Your task to perform on an android device: Search for a new water heater on Home Depot Image 0: 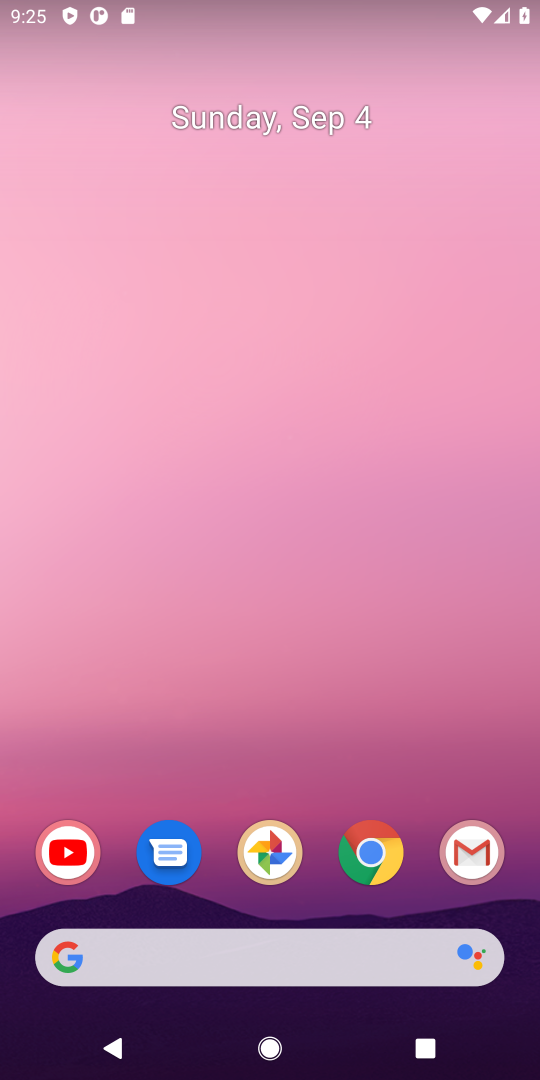
Step 0: drag from (307, 212) to (352, 1)
Your task to perform on an android device: Search for a new water heater on Home Depot Image 1: 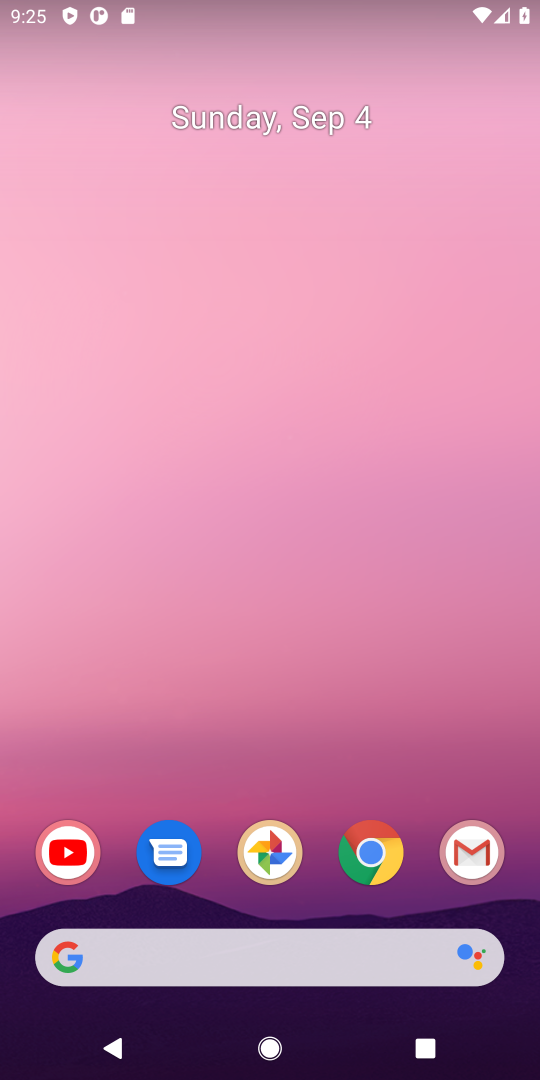
Step 1: drag from (452, 756) to (156, 6)
Your task to perform on an android device: Search for a new water heater on Home Depot Image 2: 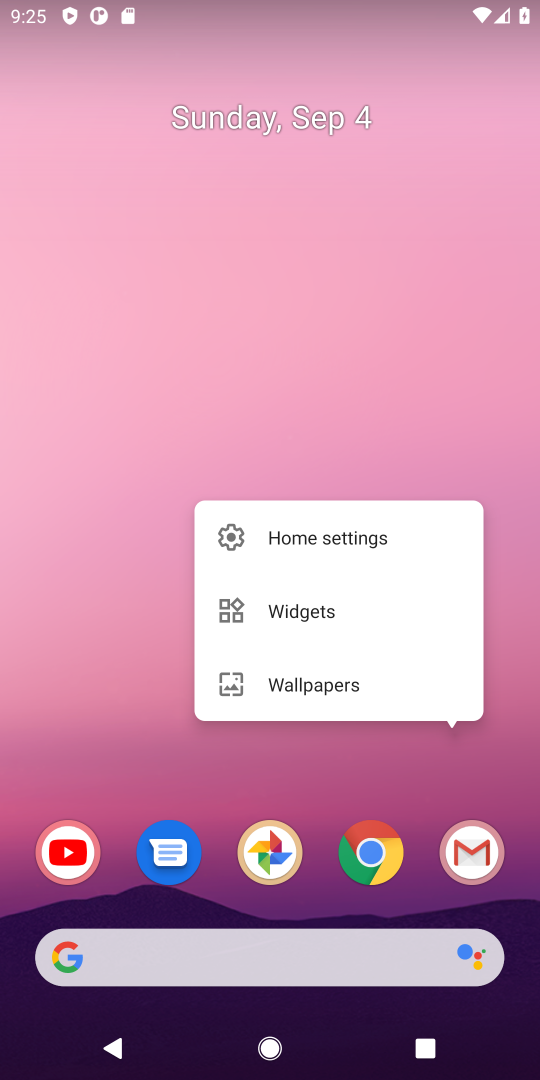
Step 2: click (460, 314)
Your task to perform on an android device: Search for a new water heater on Home Depot Image 3: 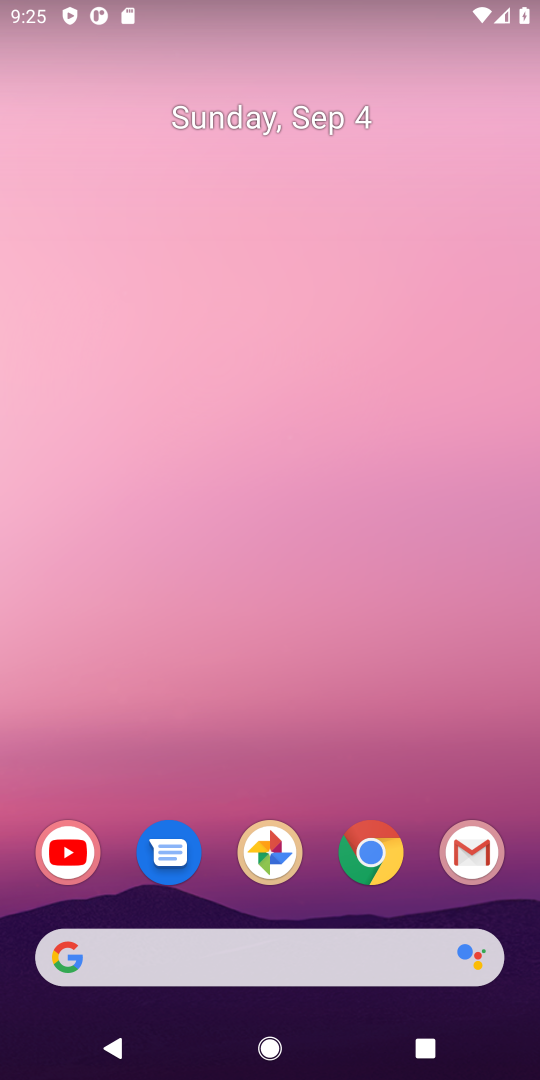
Step 3: click (194, 48)
Your task to perform on an android device: Search for a new water heater on Home Depot Image 4: 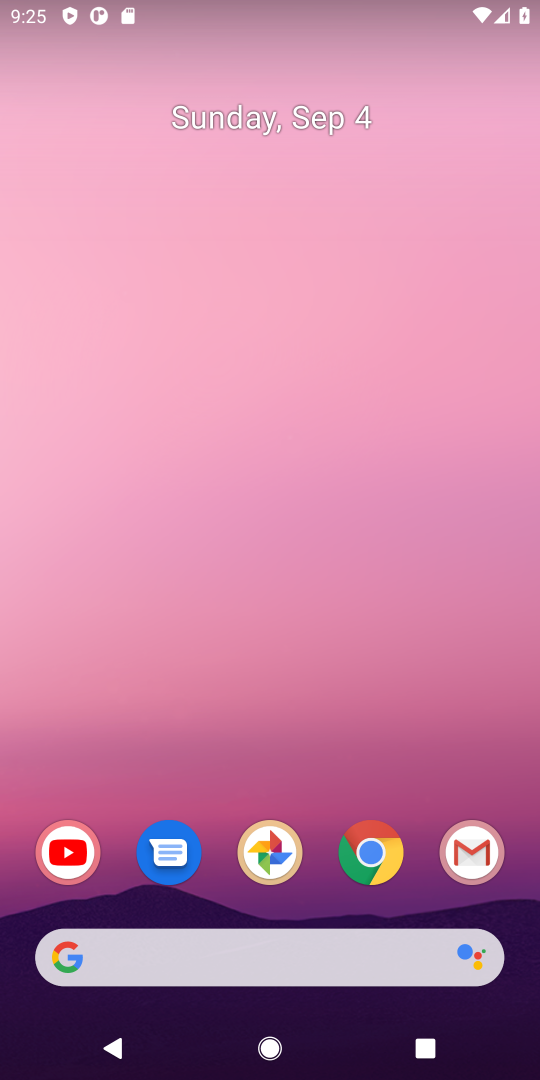
Step 4: drag from (392, 373) to (311, 87)
Your task to perform on an android device: Search for a new water heater on Home Depot Image 5: 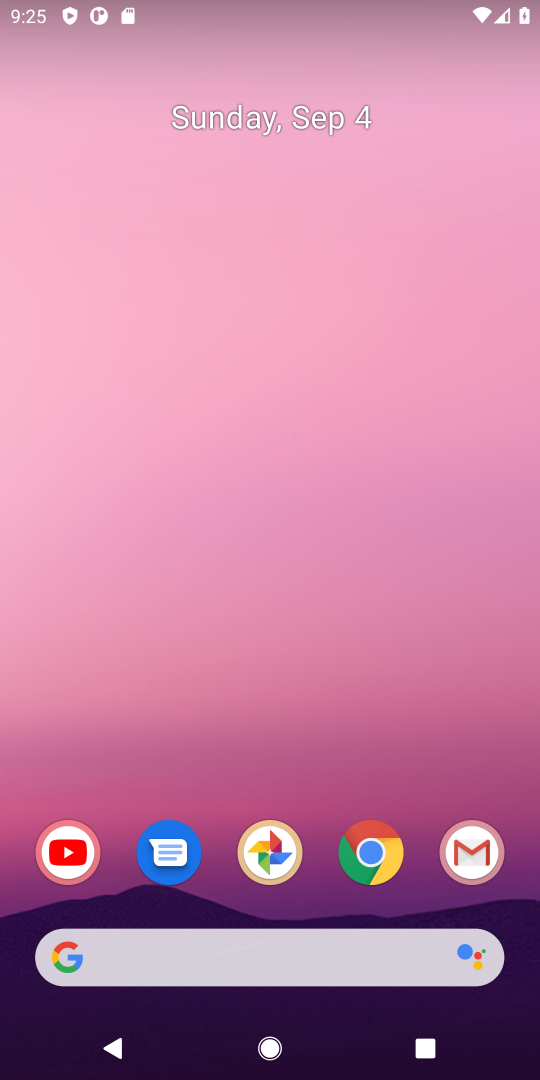
Step 5: drag from (293, 91) to (271, 38)
Your task to perform on an android device: Search for a new water heater on Home Depot Image 6: 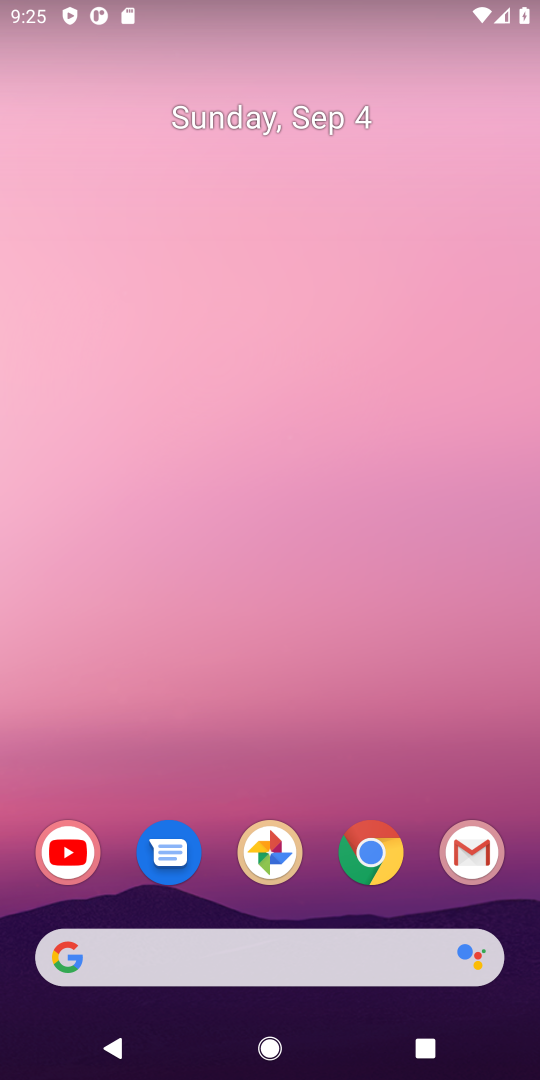
Step 6: drag from (515, 804) to (217, 8)
Your task to perform on an android device: Search for a new water heater on Home Depot Image 7: 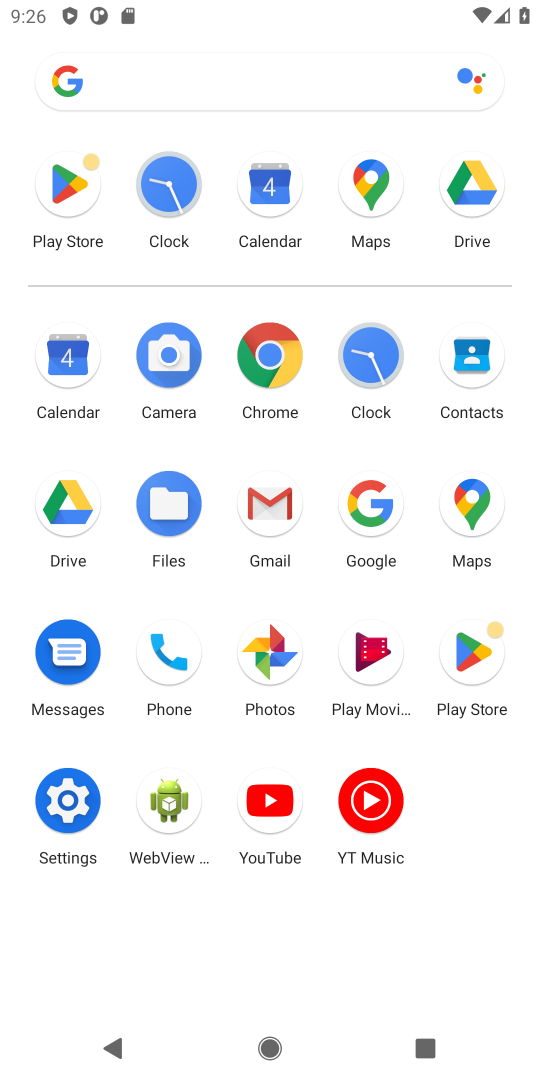
Step 7: click (386, 504)
Your task to perform on an android device: Search for a new water heater on Home Depot Image 8: 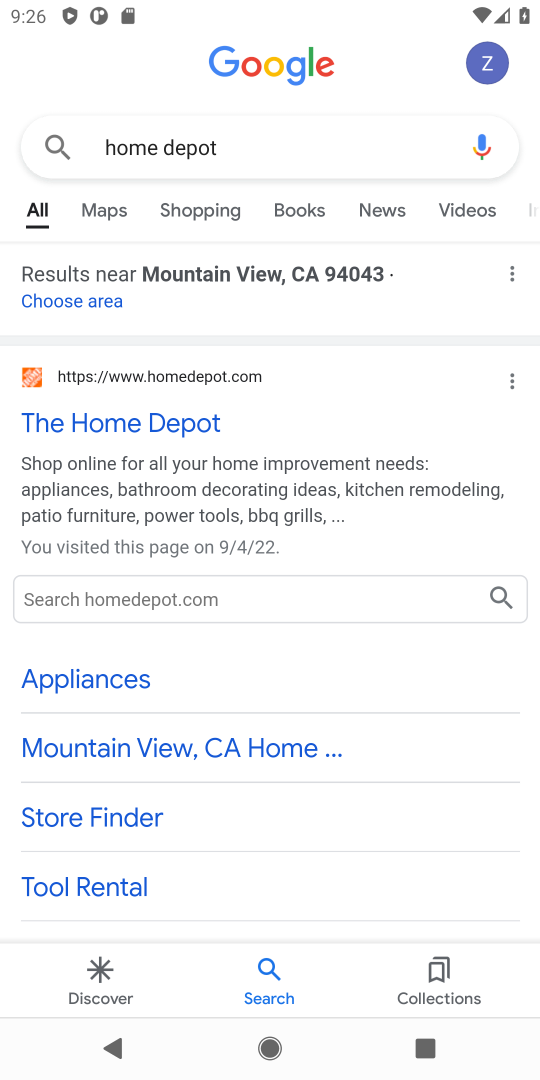
Step 8: click (161, 424)
Your task to perform on an android device: Search for a new water heater on Home Depot Image 9: 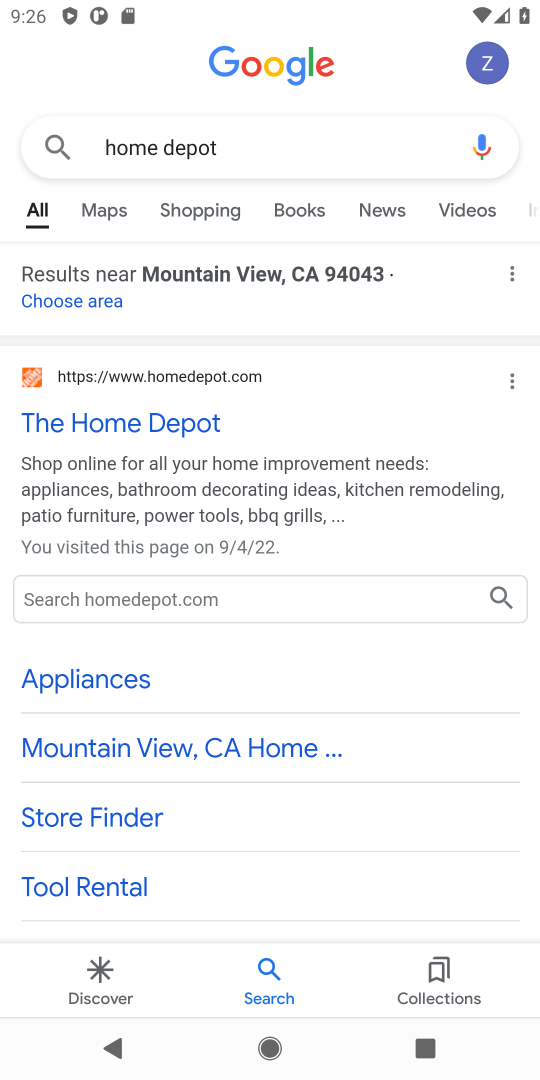
Step 9: click (161, 424)
Your task to perform on an android device: Search for a new water heater on Home Depot Image 10: 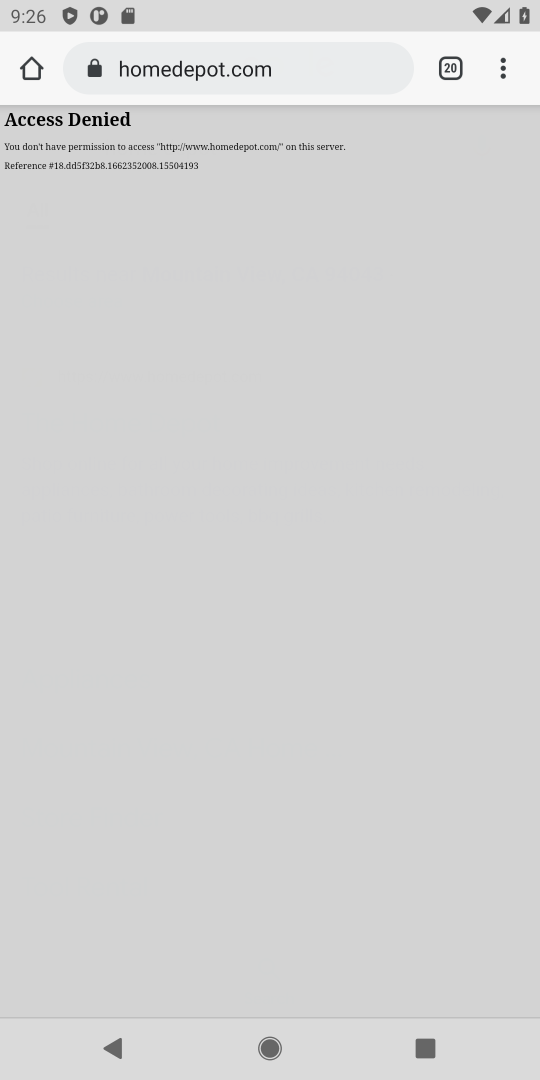
Step 10: click (161, 424)
Your task to perform on an android device: Search for a new water heater on Home Depot Image 11: 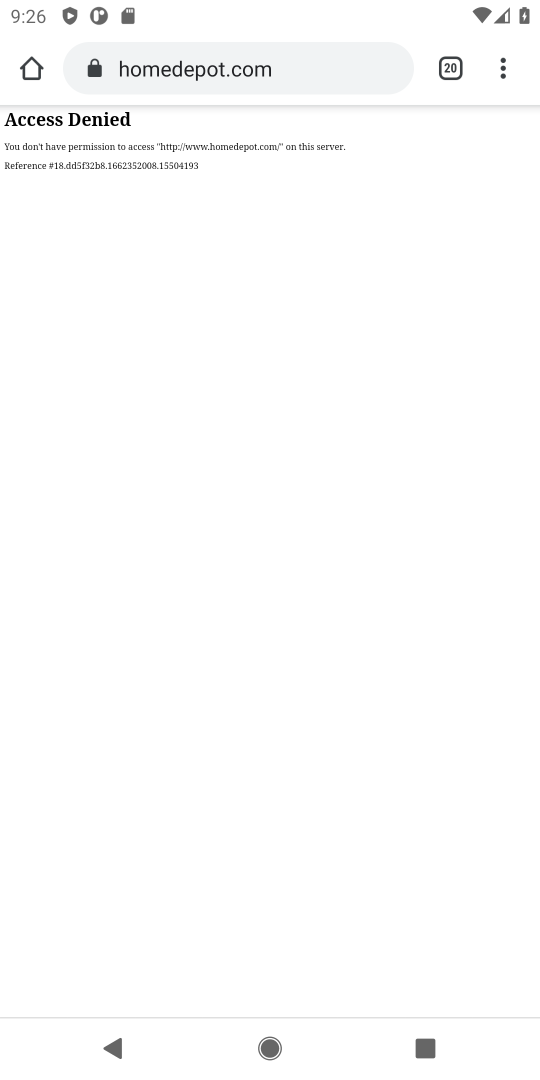
Step 11: task complete